Your task to perform on an android device: delete location history Image 0: 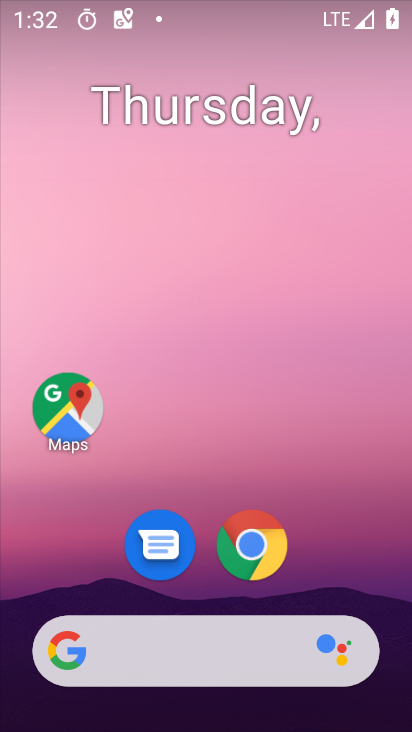
Step 0: drag from (282, 636) to (369, 21)
Your task to perform on an android device: delete location history Image 1: 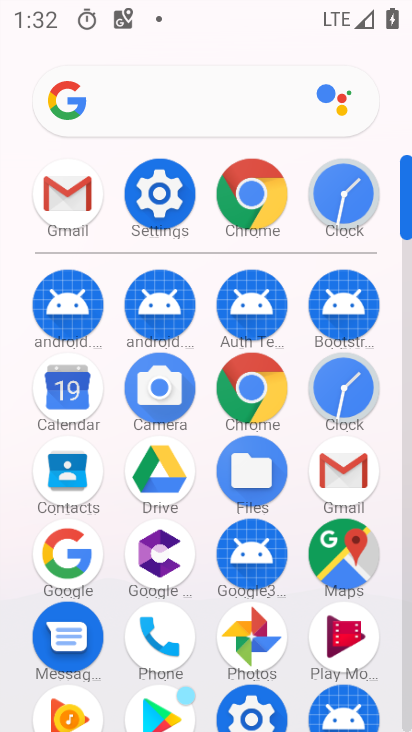
Step 1: click (351, 547)
Your task to perform on an android device: delete location history Image 2: 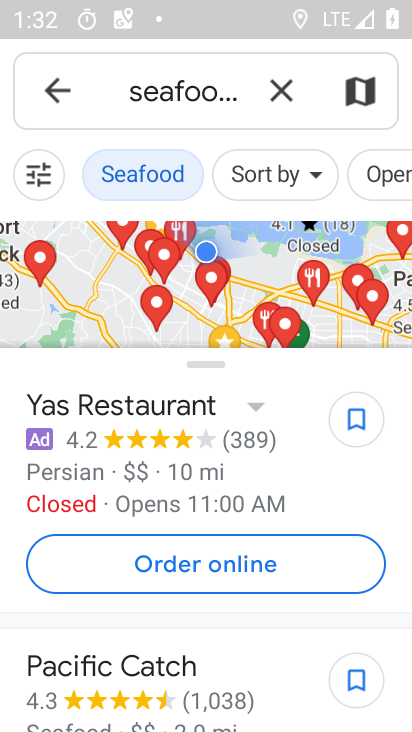
Step 2: press back button
Your task to perform on an android device: delete location history Image 3: 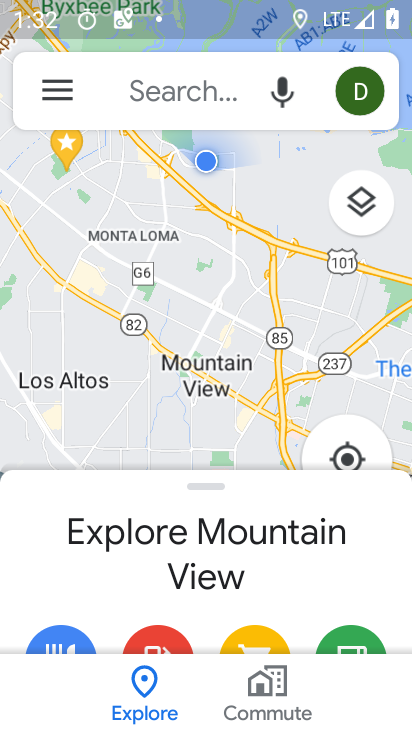
Step 3: click (53, 89)
Your task to perform on an android device: delete location history Image 4: 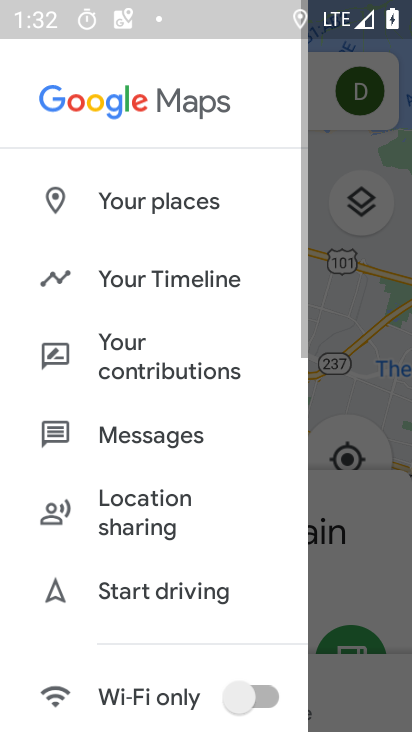
Step 4: click (146, 286)
Your task to perform on an android device: delete location history Image 5: 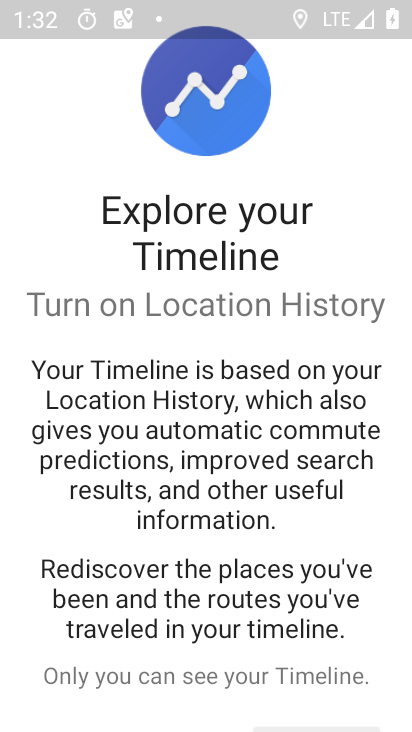
Step 5: drag from (293, 614) to (229, 56)
Your task to perform on an android device: delete location history Image 6: 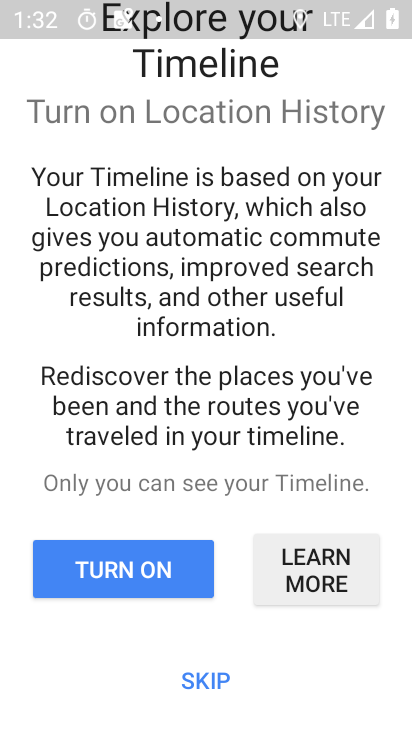
Step 6: click (198, 670)
Your task to perform on an android device: delete location history Image 7: 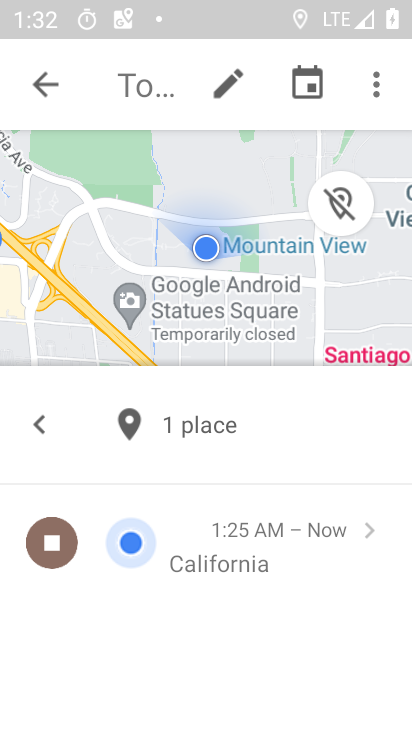
Step 7: click (382, 90)
Your task to perform on an android device: delete location history Image 8: 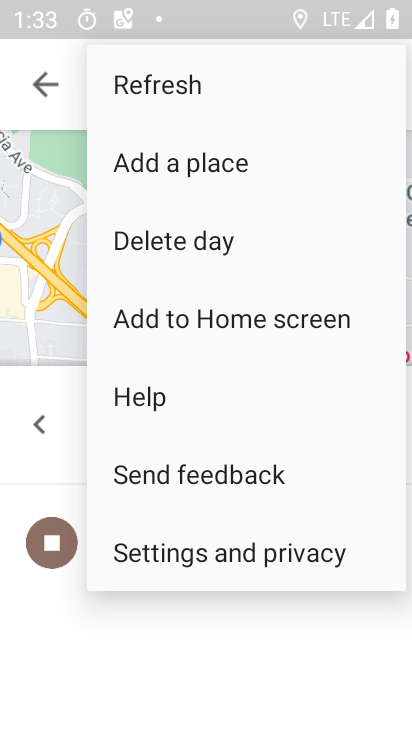
Step 8: click (197, 559)
Your task to perform on an android device: delete location history Image 9: 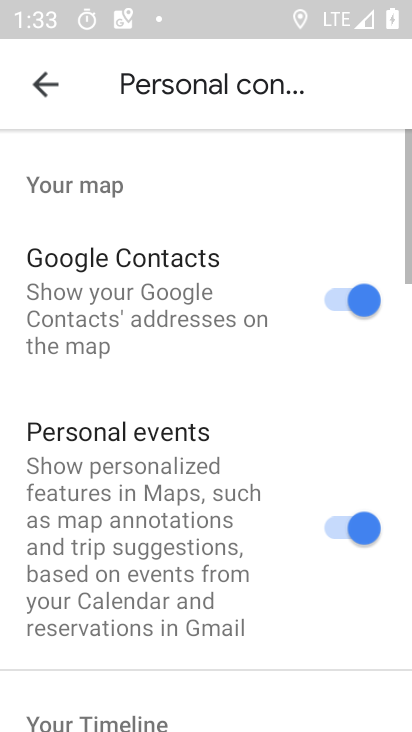
Step 9: drag from (210, 667) to (205, 149)
Your task to perform on an android device: delete location history Image 10: 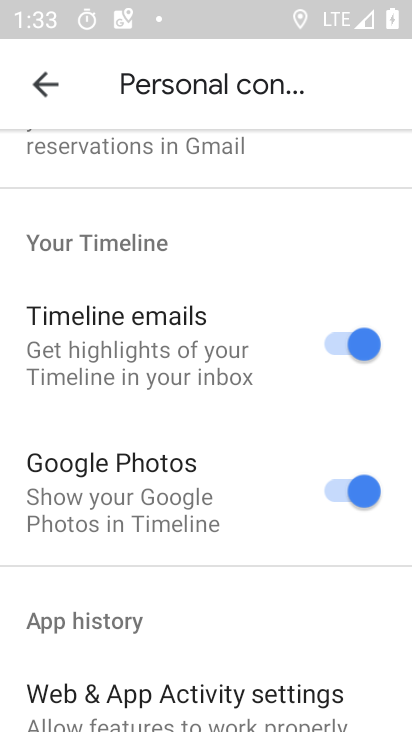
Step 10: drag from (231, 672) to (156, 191)
Your task to perform on an android device: delete location history Image 11: 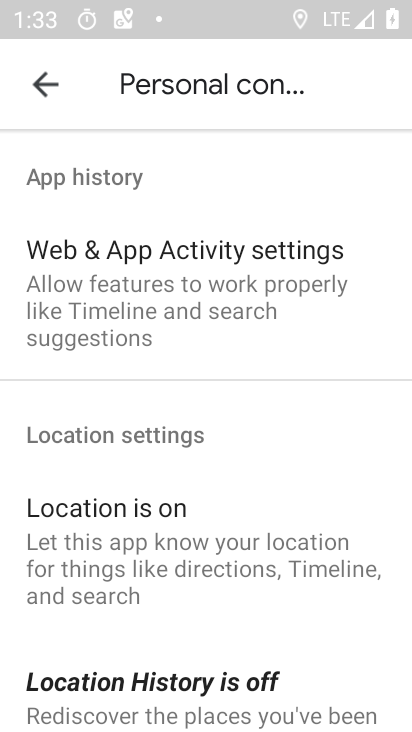
Step 11: drag from (204, 670) to (159, 209)
Your task to perform on an android device: delete location history Image 12: 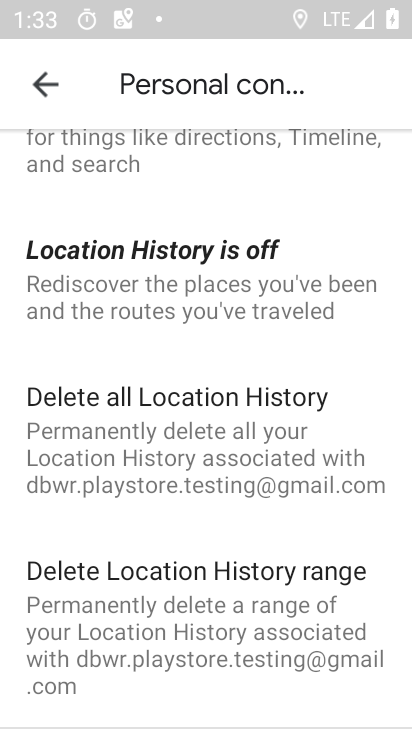
Step 12: click (212, 415)
Your task to perform on an android device: delete location history Image 13: 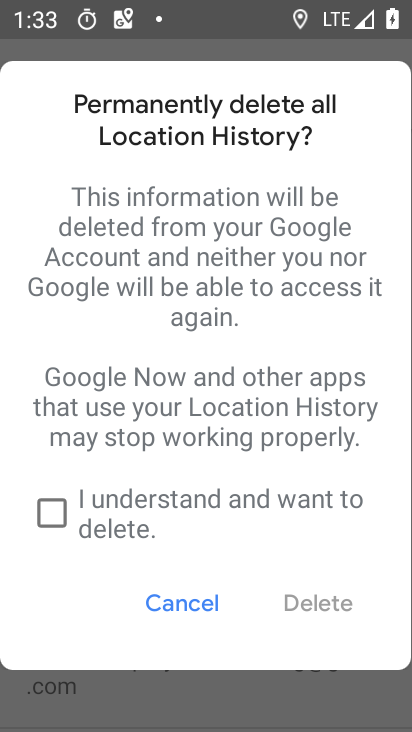
Step 13: click (59, 507)
Your task to perform on an android device: delete location history Image 14: 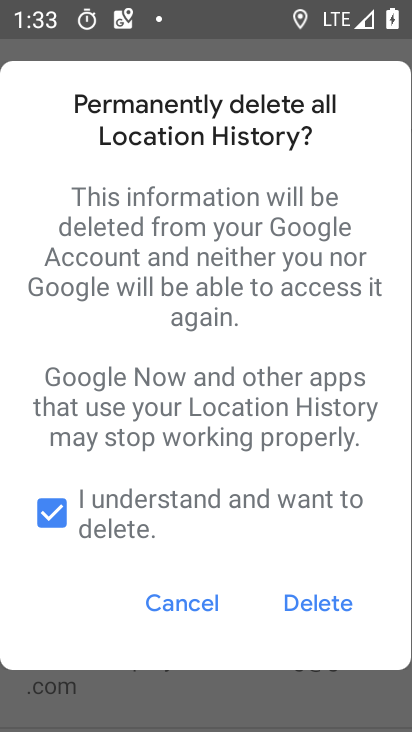
Step 14: click (320, 597)
Your task to perform on an android device: delete location history Image 15: 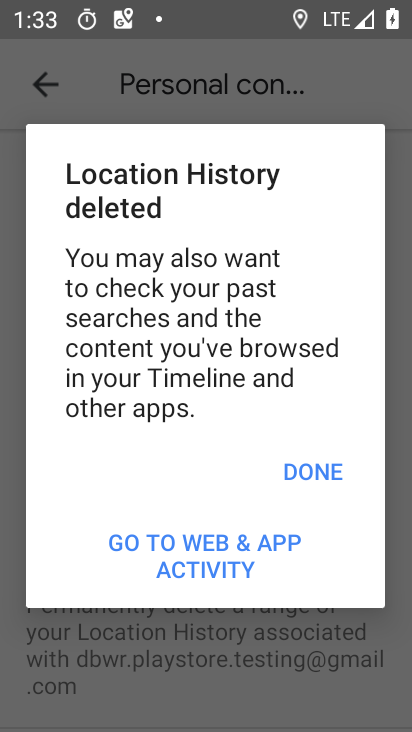
Step 15: task complete